Your task to perform on an android device: What's the news in Bangladesh? Image 0: 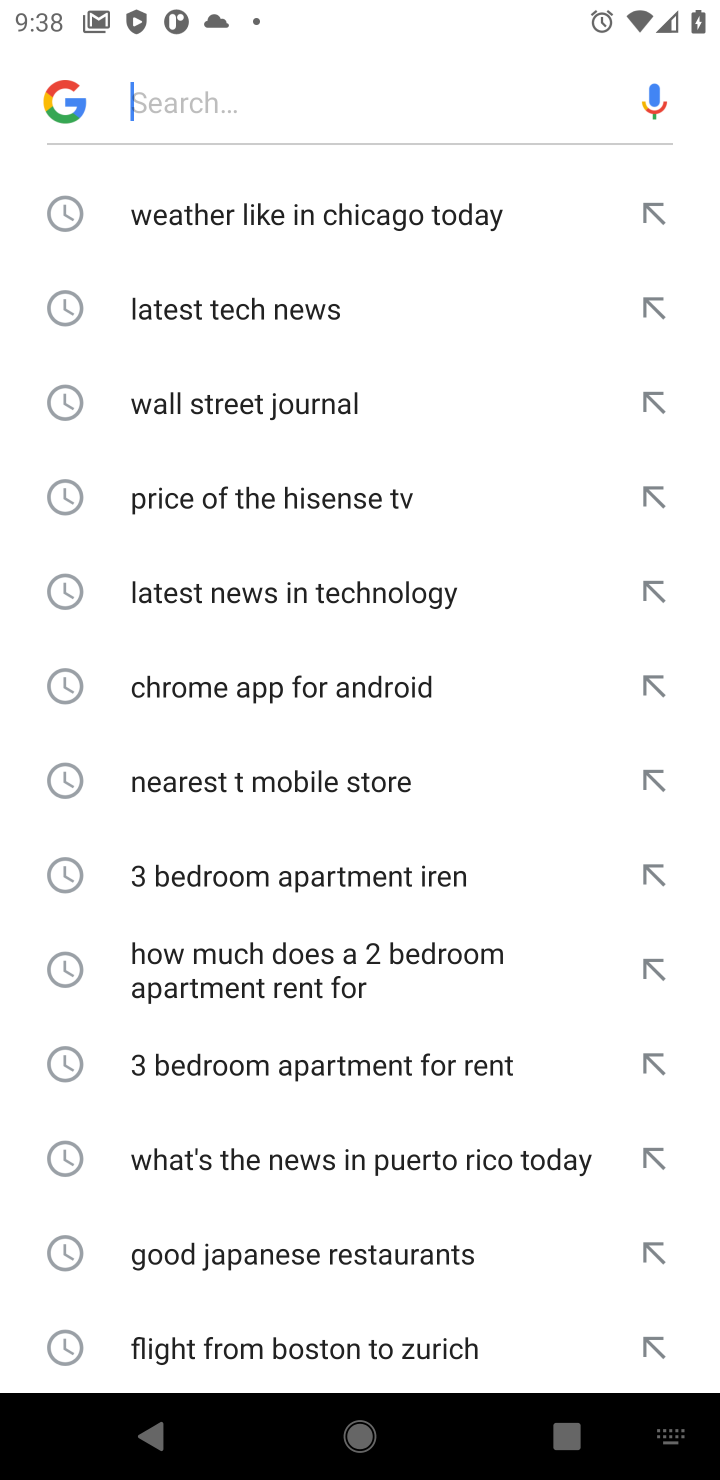
Step 0: type "news in bangladesh"
Your task to perform on an android device: What's the news in Bangladesh? Image 1: 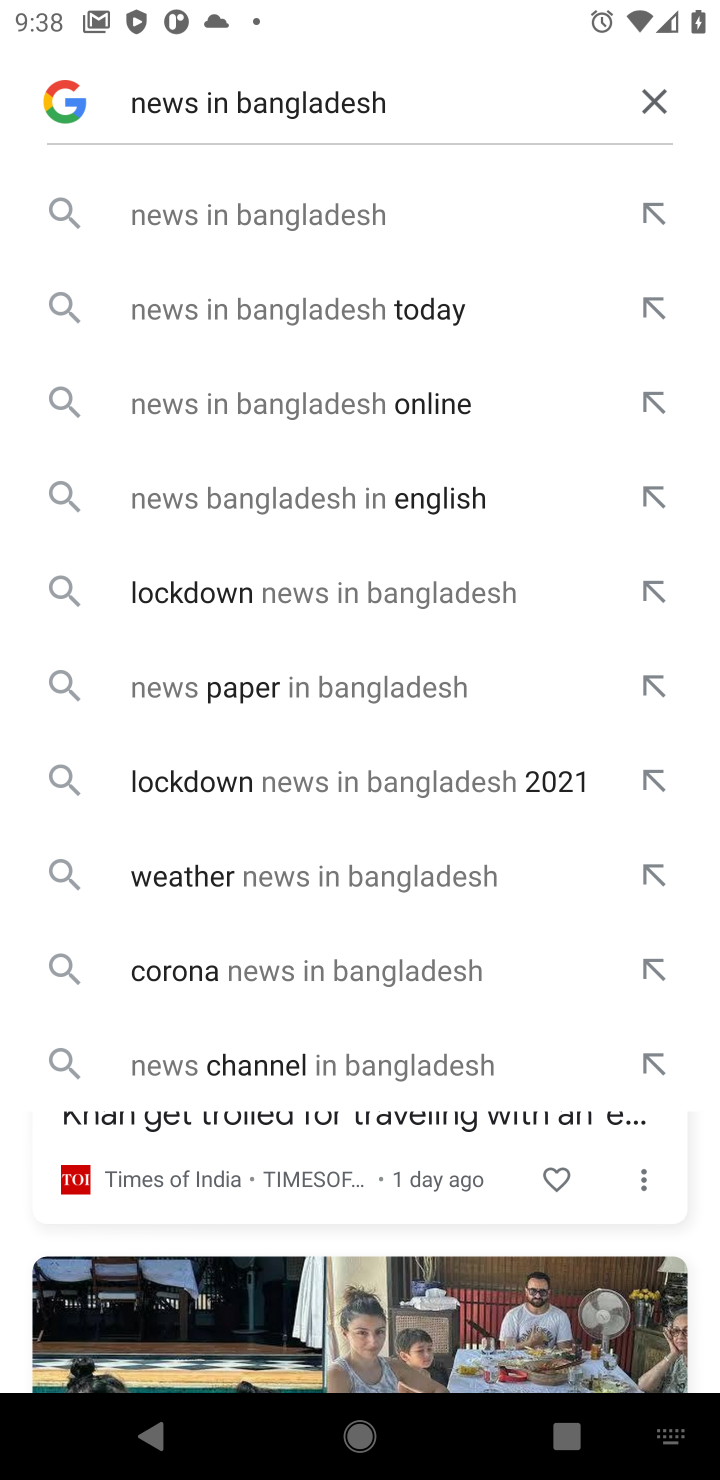
Step 1: click (316, 306)
Your task to perform on an android device: What's the news in Bangladesh? Image 2: 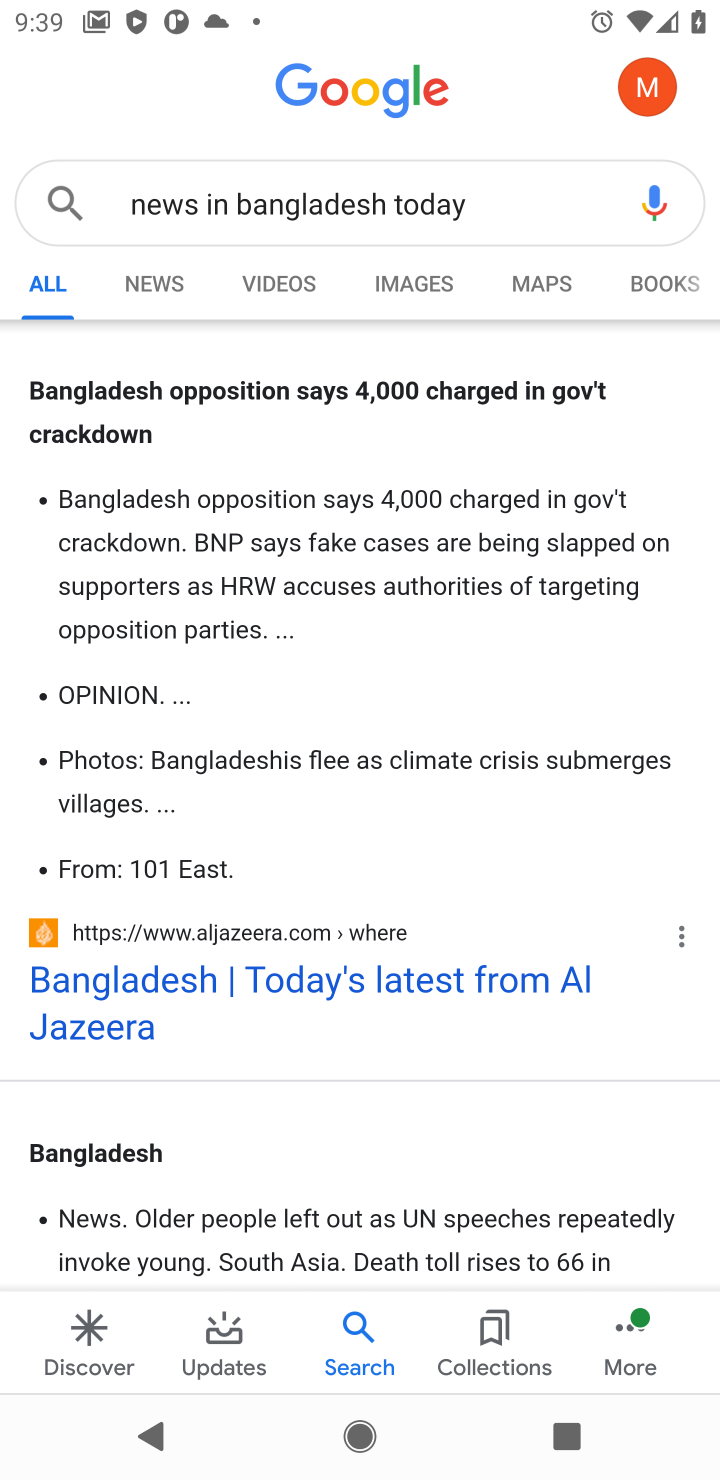
Step 2: drag from (331, 478) to (370, 161)
Your task to perform on an android device: What's the news in Bangladesh? Image 3: 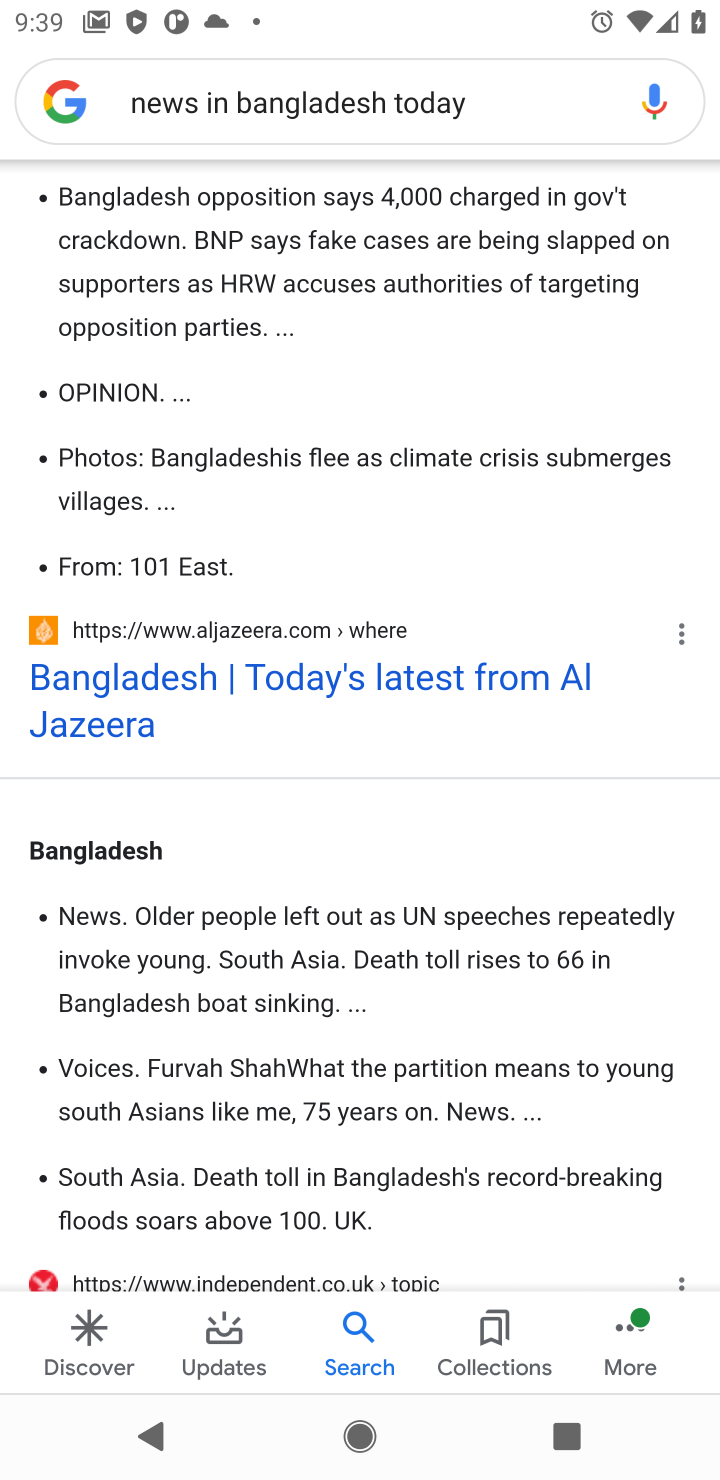
Step 3: drag from (301, 715) to (301, 441)
Your task to perform on an android device: What's the news in Bangladesh? Image 4: 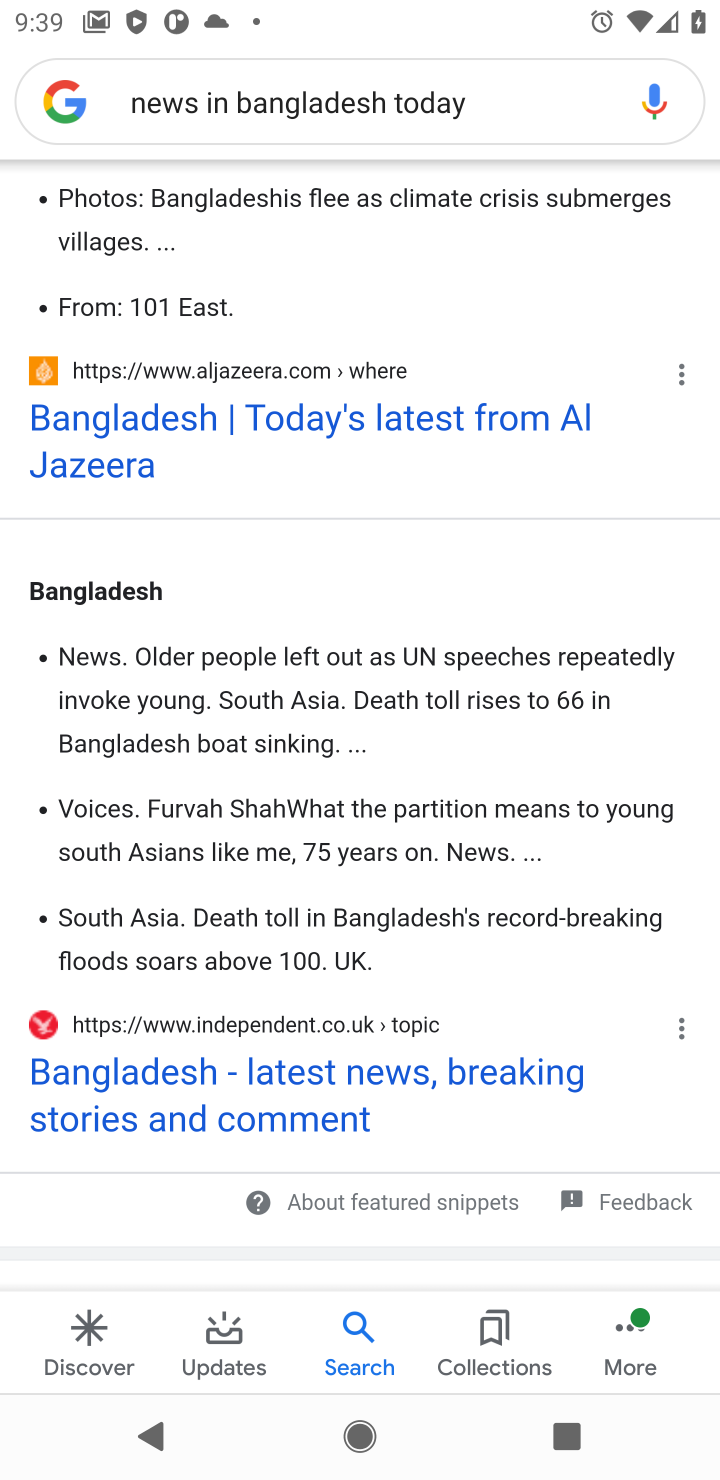
Step 4: drag from (293, 1127) to (386, 714)
Your task to perform on an android device: What's the news in Bangladesh? Image 5: 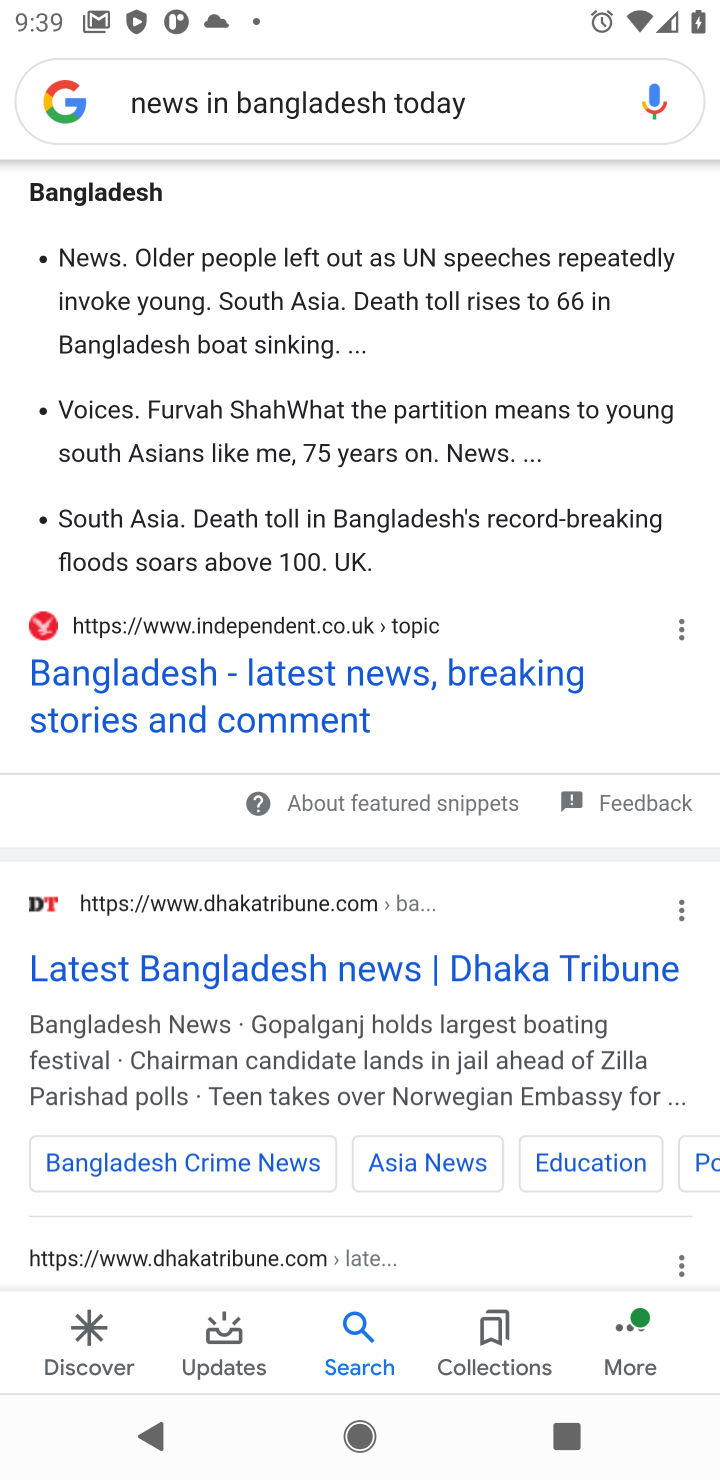
Step 5: click (386, 711)
Your task to perform on an android device: What's the news in Bangladesh? Image 6: 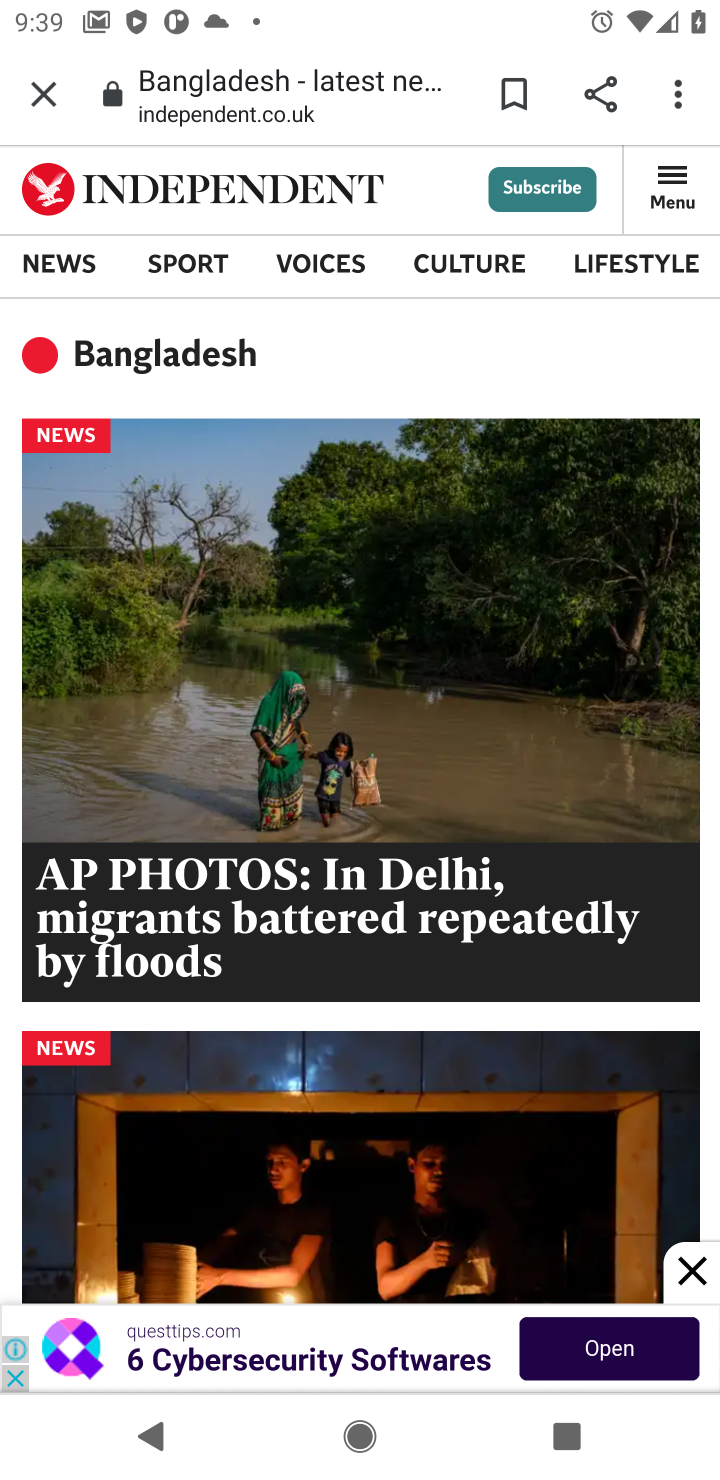
Step 6: click (681, 569)
Your task to perform on an android device: What's the news in Bangladesh? Image 7: 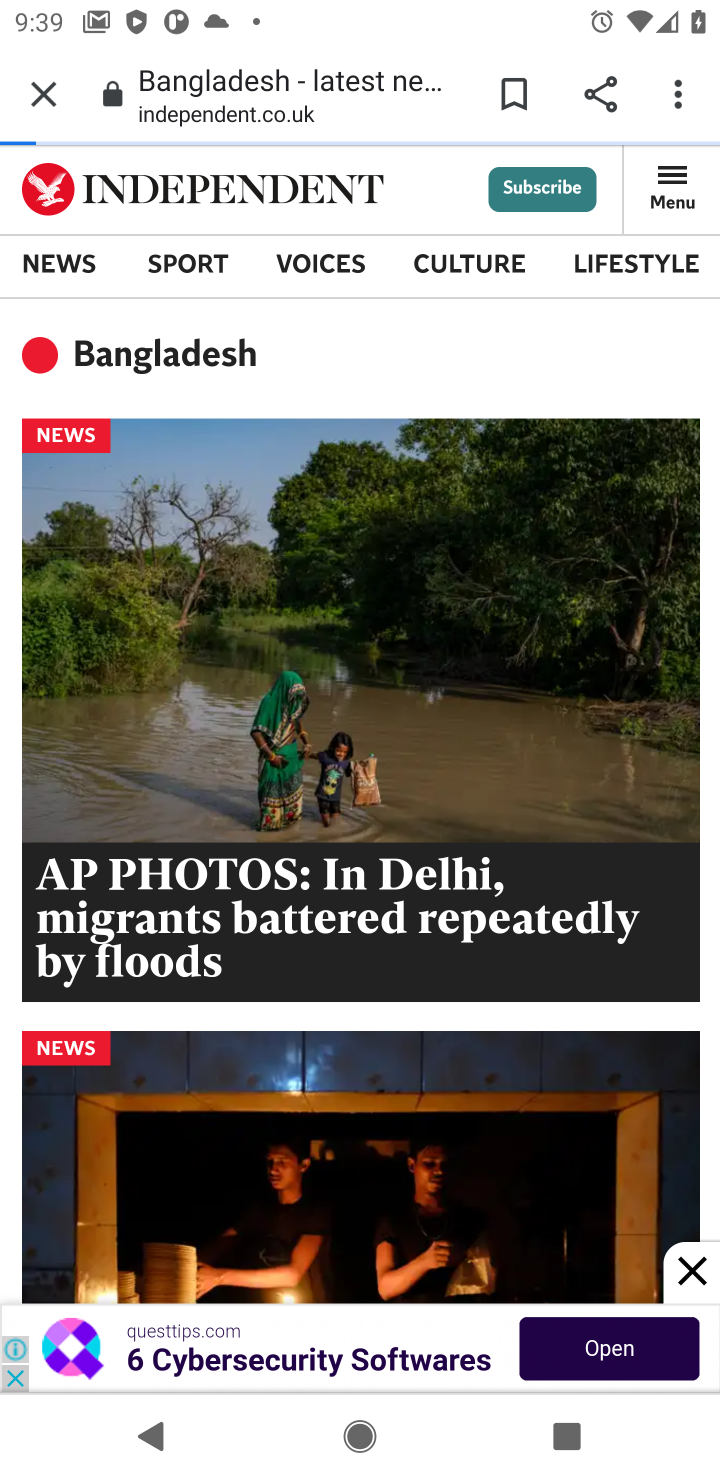
Step 7: drag from (557, 625) to (564, 496)
Your task to perform on an android device: What's the news in Bangladesh? Image 8: 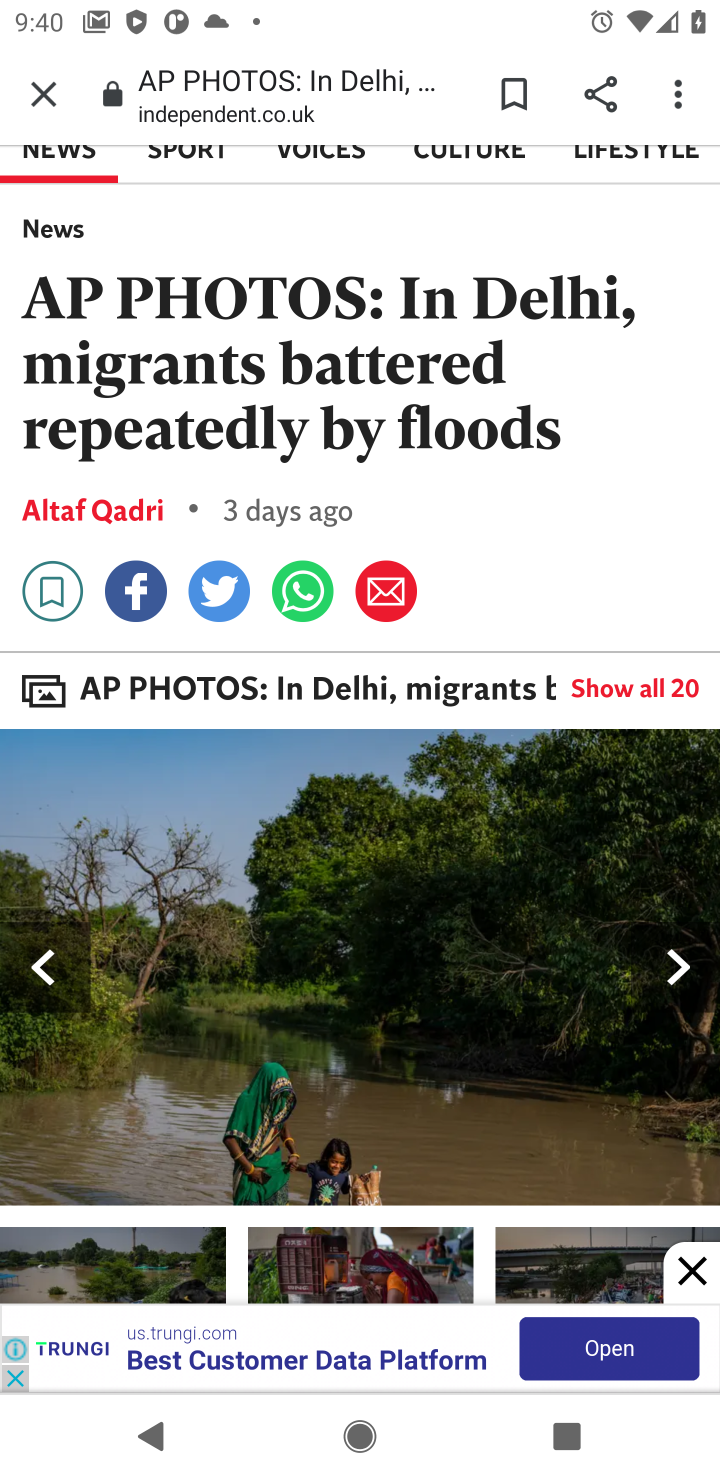
Step 8: drag from (462, 1072) to (541, 523)
Your task to perform on an android device: What's the news in Bangladesh? Image 9: 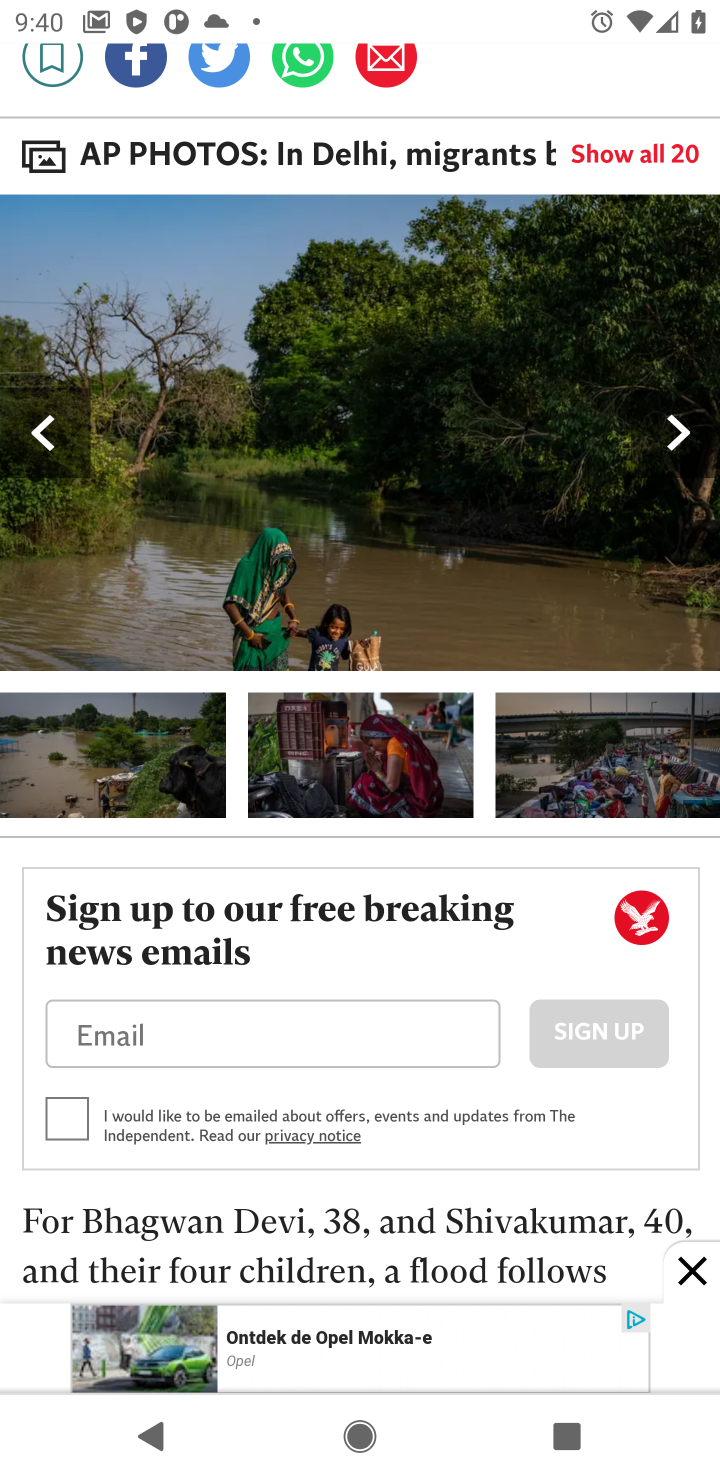
Step 9: click (534, 595)
Your task to perform on an android device: What's the news in Bangladesh? Image 10: 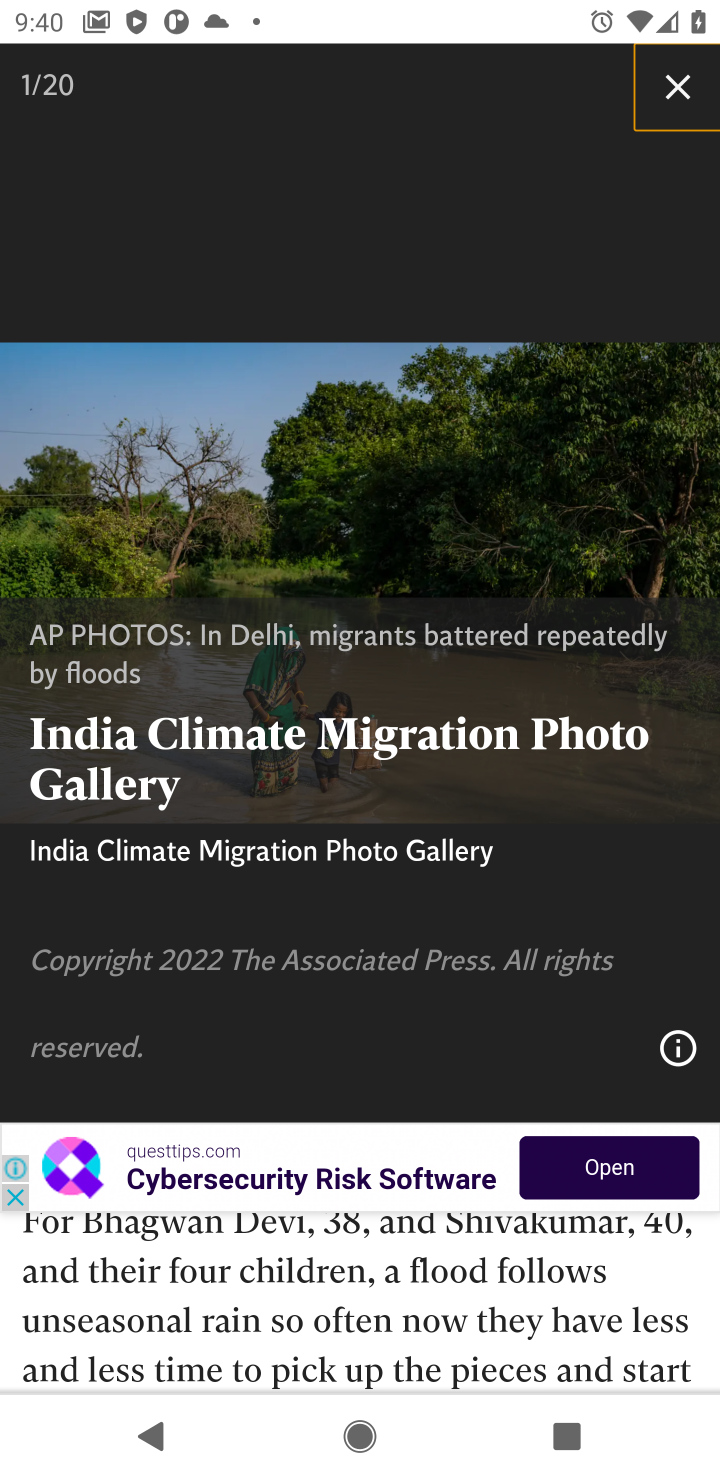
Step 10: task complete